Your task to perform on an android device: open app "Google Drive" Image 0: 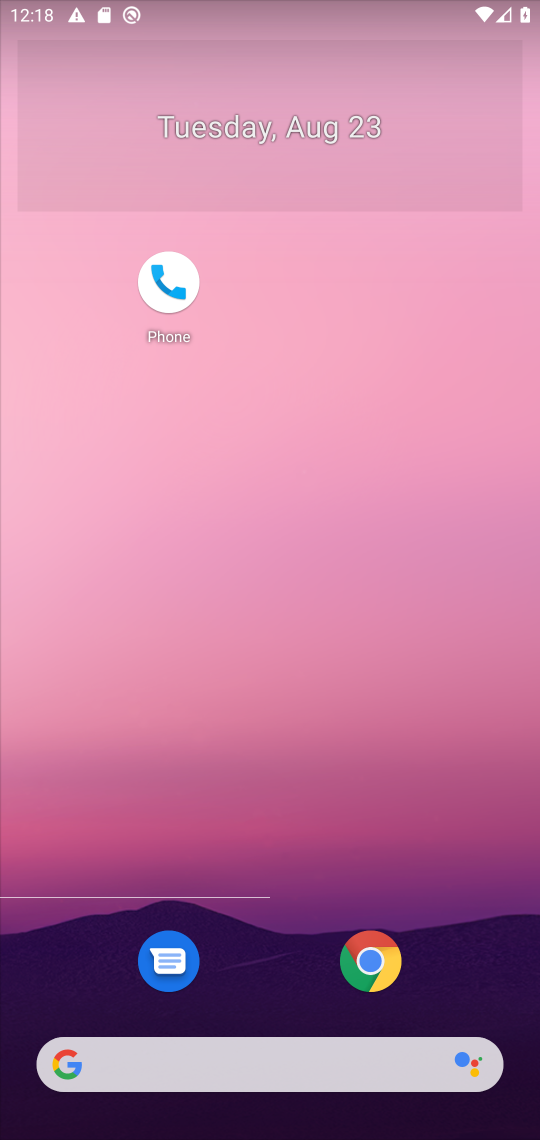
Step 0: drag from (288, 748) to (292, 94)
Your task to perform on an android device: open app "Google Drive" Image 1: 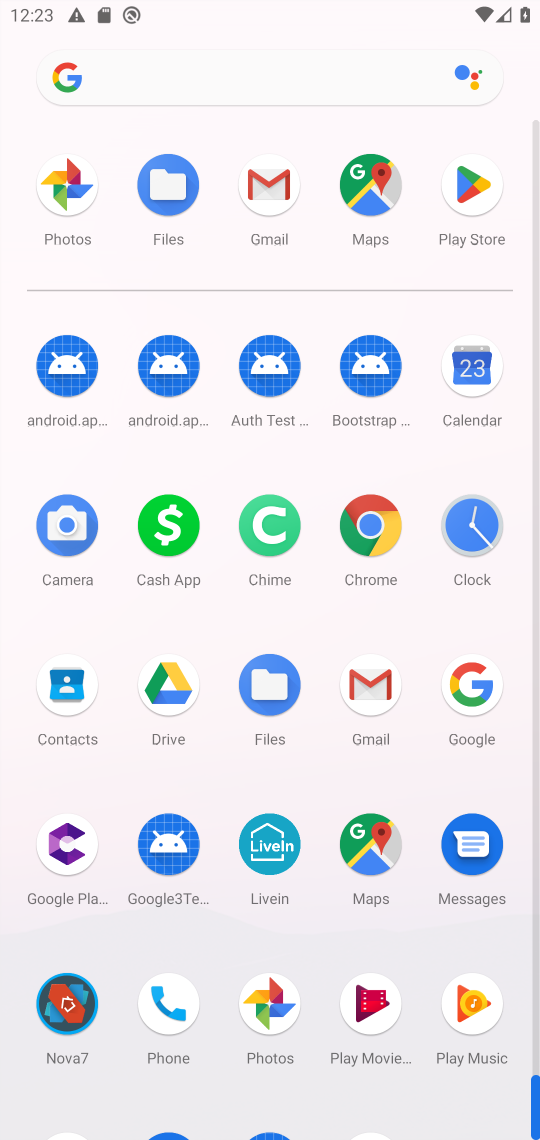
Step 1: click (484, 192)
Your task to perform on an android device: open app "Google Drive" Image 2: 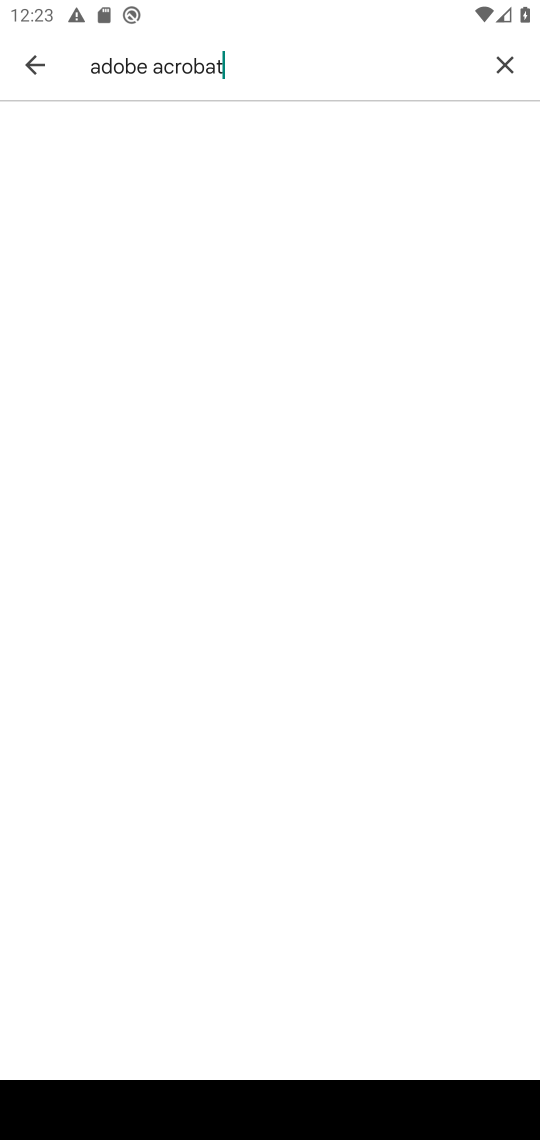
Step 2: click (486, 73)
Your task to perform on an android device: open app "Google Drive" Image 3: 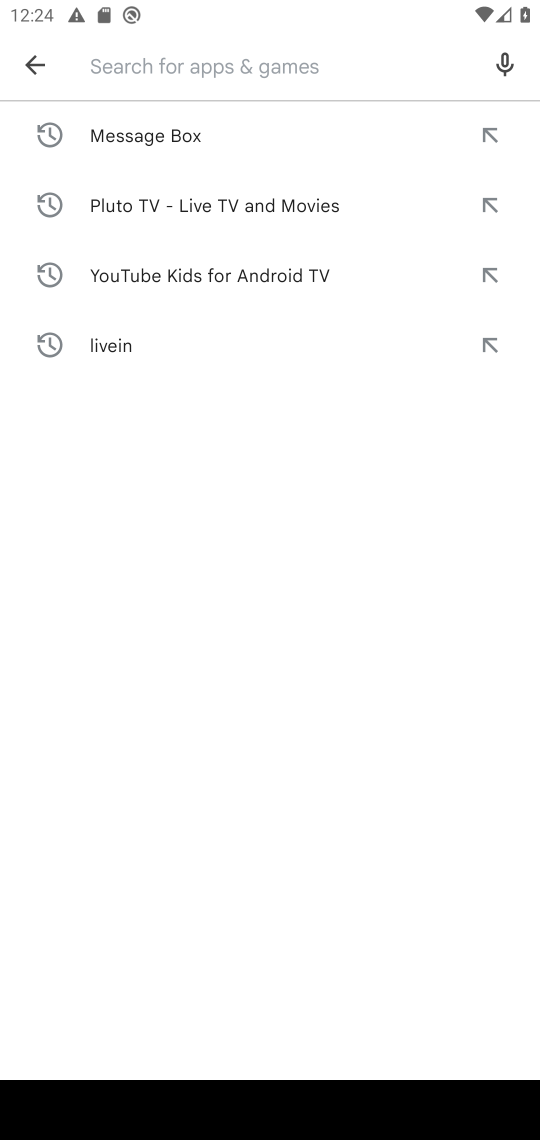
Step 3: type "google drive"
Your task to perform on an android device: open app "Google Drive" Image 4: 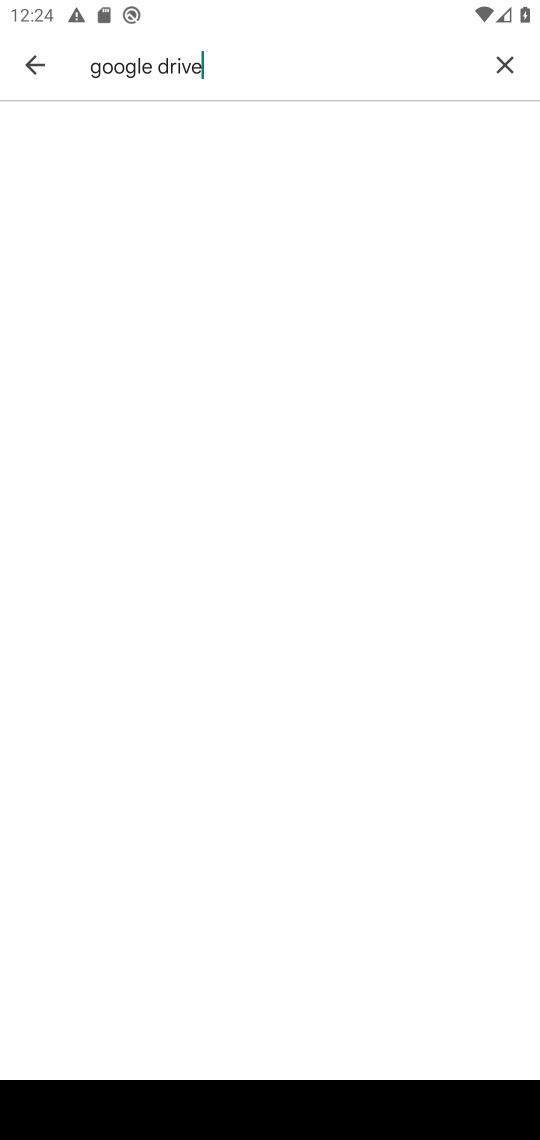
Step 4: task complete